Your task to perform on an android device: What is the news today? Image 0: 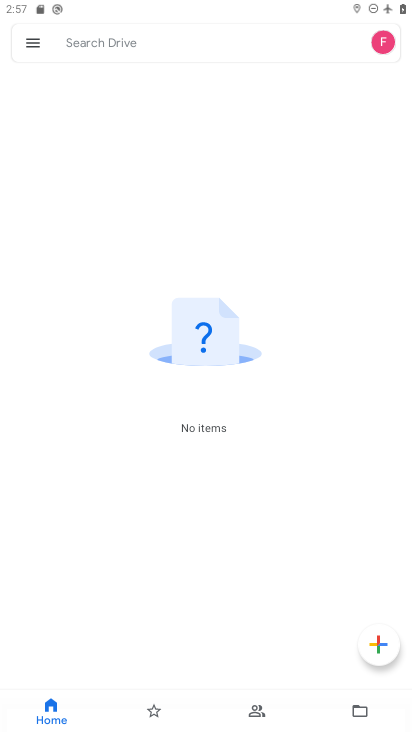
Step 0: press home button
Your task to perform on an android device: What is the news today? Image 1: 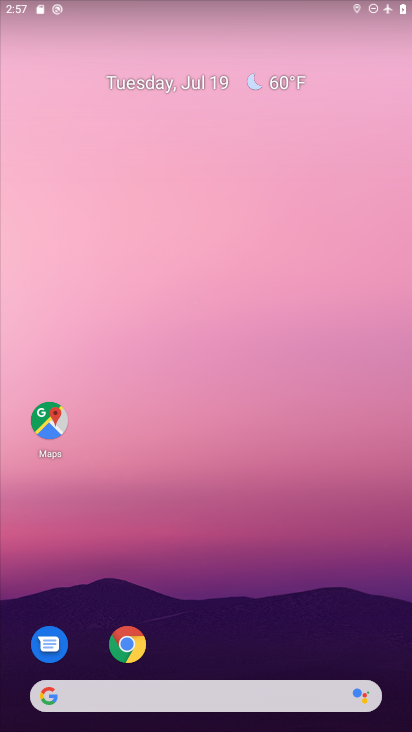
Step 1: click (220, 691)
Your task to perform on an android device: What is the news today? Image 2: 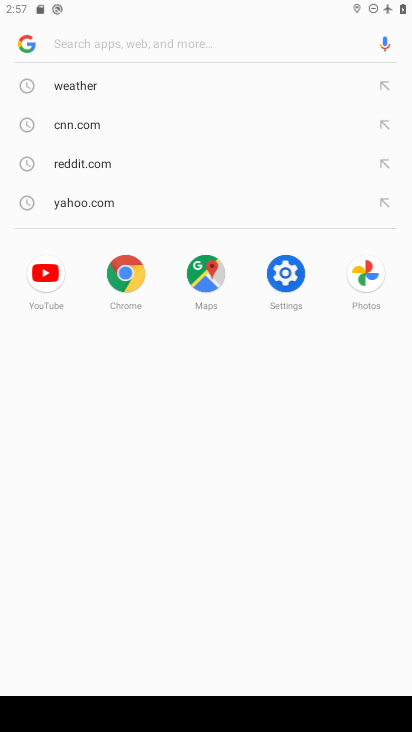
Step 2: task complete